Your task to perform on an android device: open the mobile data screen to see how much data has been used Image 0: 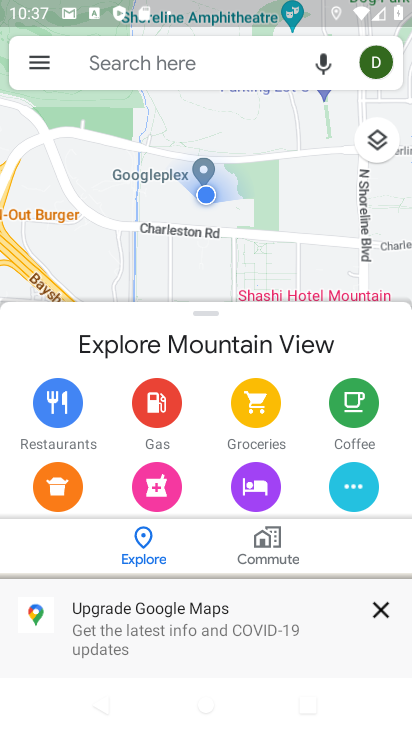
Step 0: press home button
Your task to perform on an android device: open the mobile data screen to see how much data has been used Image 1: 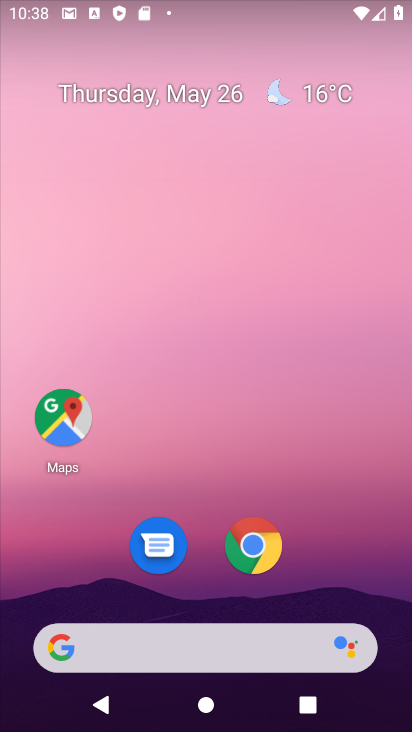
Step 1: drag from (338, 600) to (259, 207)
Your task to perform on an android device: open the mobile data screen to see how much data has been used Image 2: 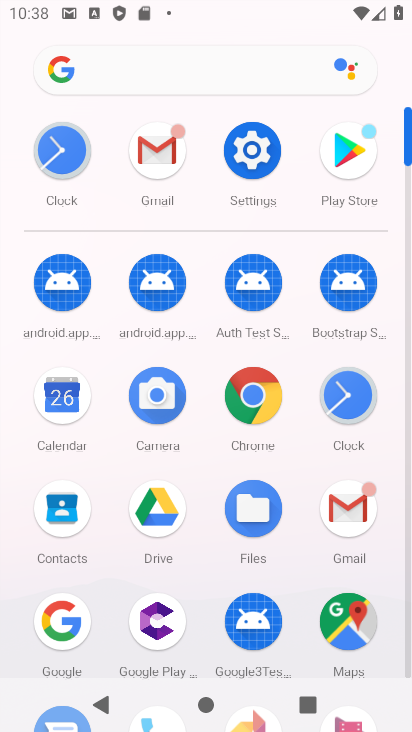
Step 2: click (252, 147)
Your task to perform on an android device: open the mobile data screen to see how much data has been used Image 3: 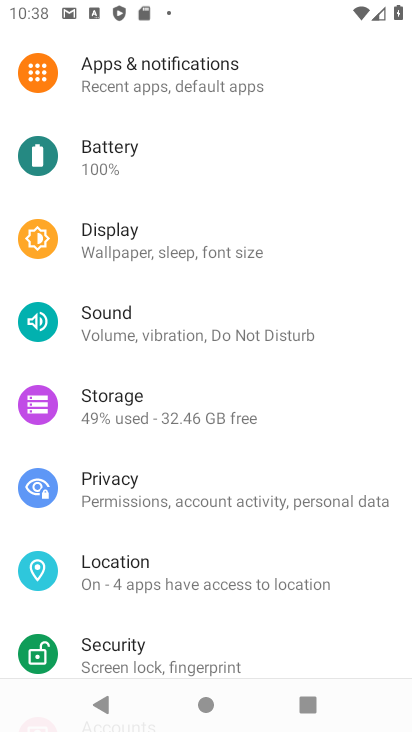
Step 3: drag from (261, 93) to (216, 471)
Your task to perform on an android device: open the mobile data screen to see how much data has been used Image 4: 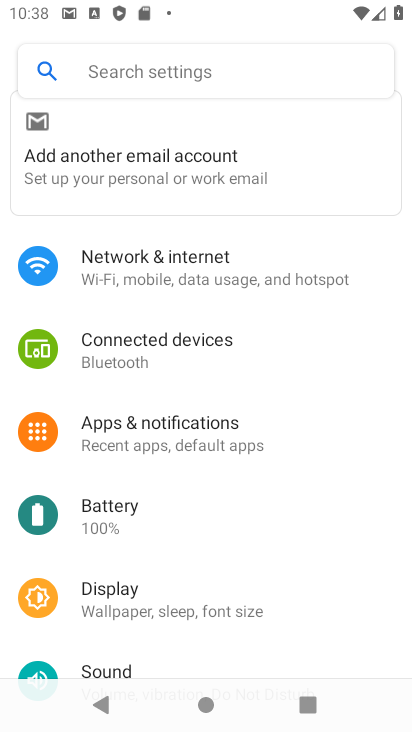
Step 4: click (173, 259)
Your task to perform on an android device: open the mobile data screen to see how much data has been used Image 5: 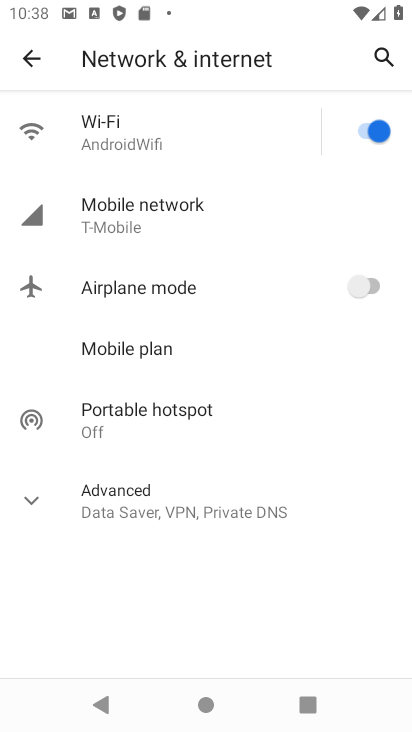
Step 5: click (134, 212)
Your task to perform on an android device: open the mobile data screen to see how much data has been used Image 6: 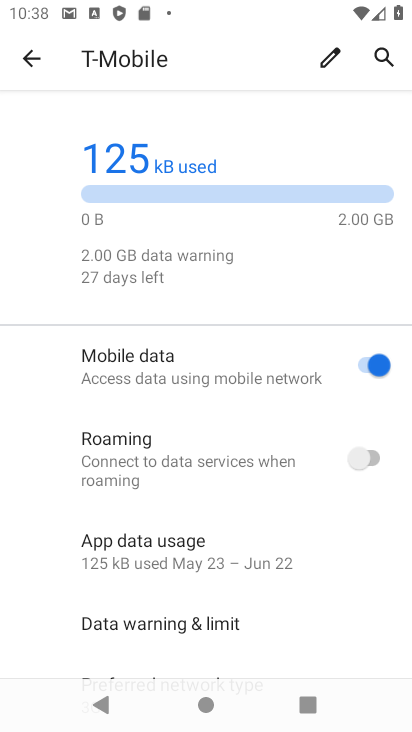
Step 6: click (122, 537)
Your task to perform on an android device: open the mobile data screen to see how much data has been used Image 7: 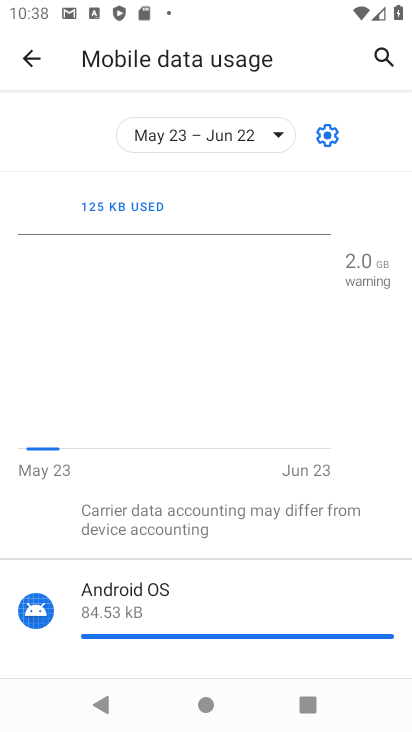
Step 7: task complete